Your task to perform on an android device: turn on airplane mode Image 0: 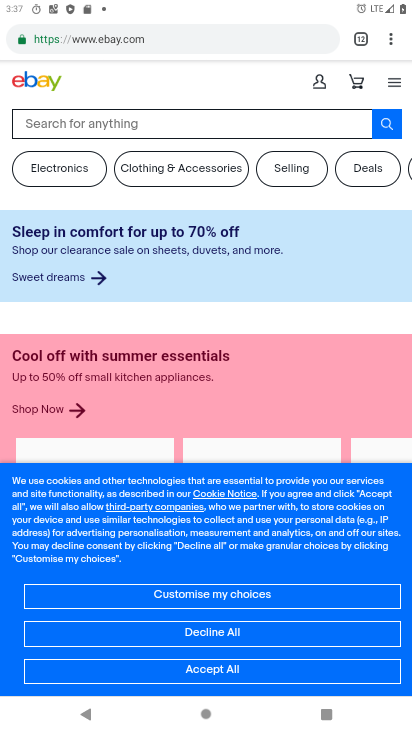
Step 0: press home button
Your task to perform on an android device: turn on airplane mode Image 1: 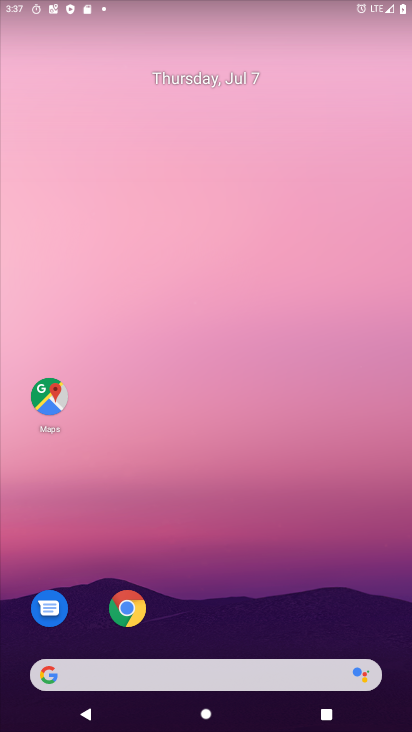
Step 1: drag from (246, 722) to (241, 91)
Your task to perform on an android device: turn on airplane mode Image 2: 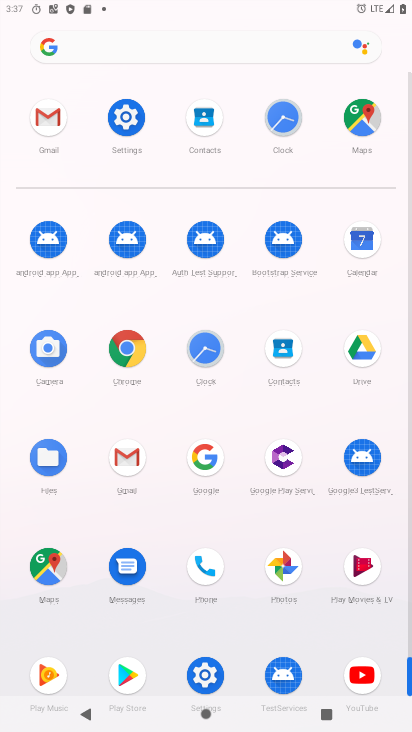
Step 2: click (132, 118)
Your task to perform on an android device: turn on airplane mode Image 3: 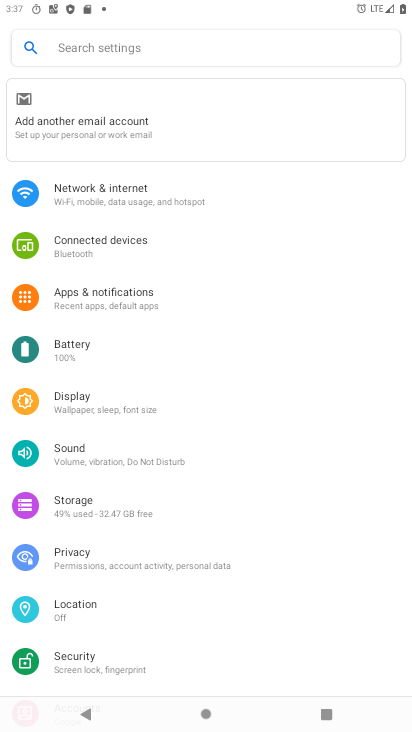
Step 3: click (93, 198)
Your task to perform on an android device: turn on airplane mode Image 4: 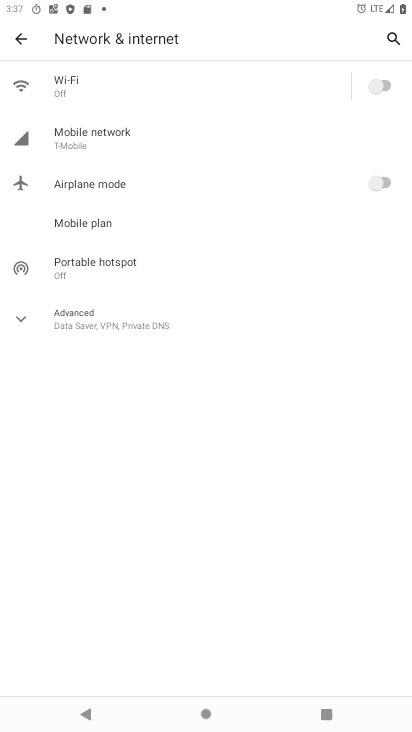
Step 4: click (382, 179)
Your task to perform on an android device: turn on airplane mode Image 5: 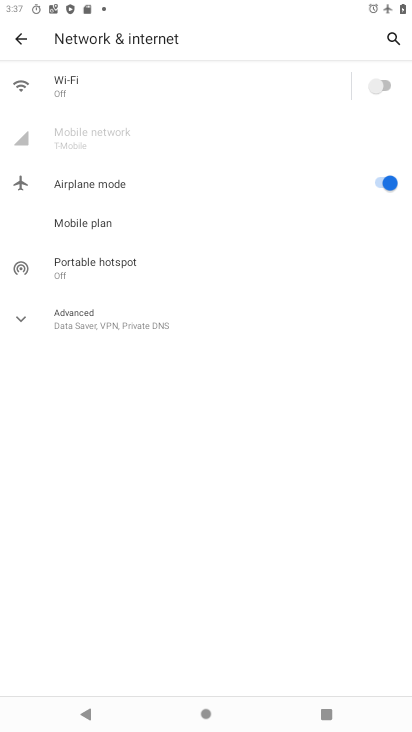
Step 5: task complete